Your task to perform on an android device: Open the map Image 0: 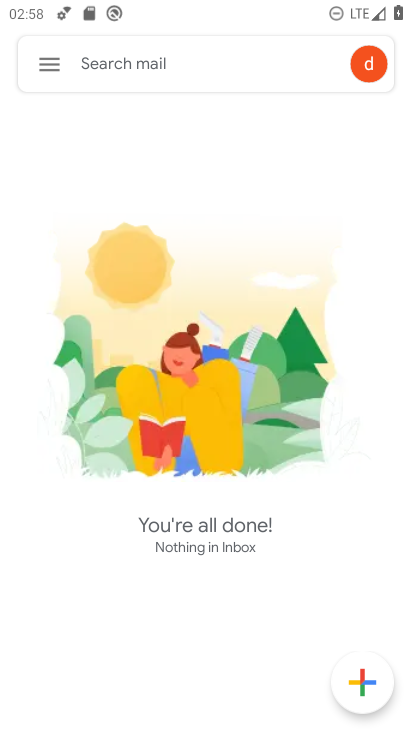
Step 0: press home button
Your task to perform on an android device: Open the map Image 1: 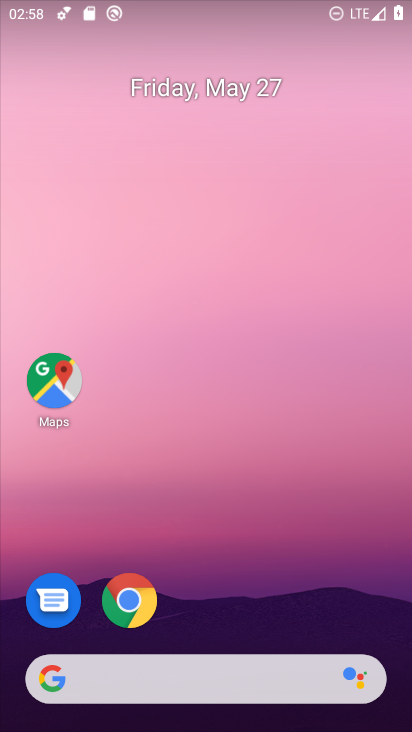
Step 1: drag from (235, 720) to (225, 227)
Your task to perform on an android device: Open the map Image 2: 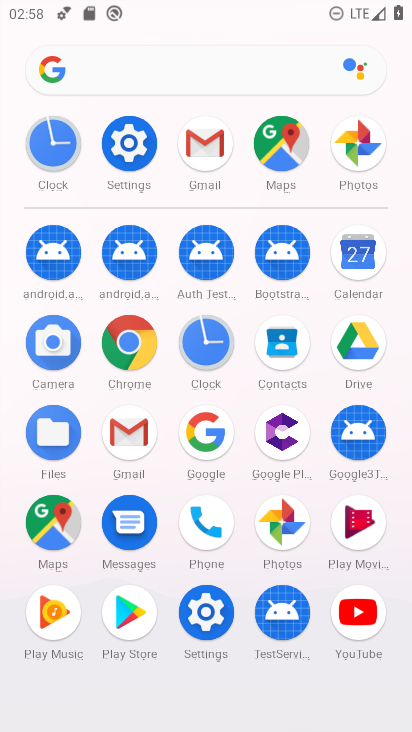
Step 2: click (53, 524)
Your task to perform on an android device: Open the map Image 3: 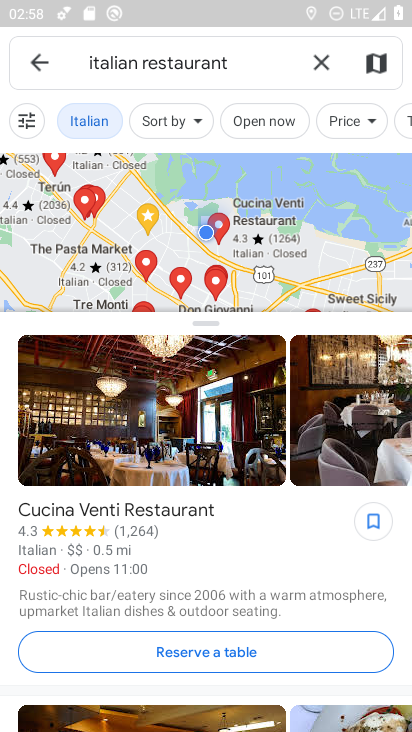
Step 3: task complete